Your task to perform on an android device: Open notification settings Image 0: 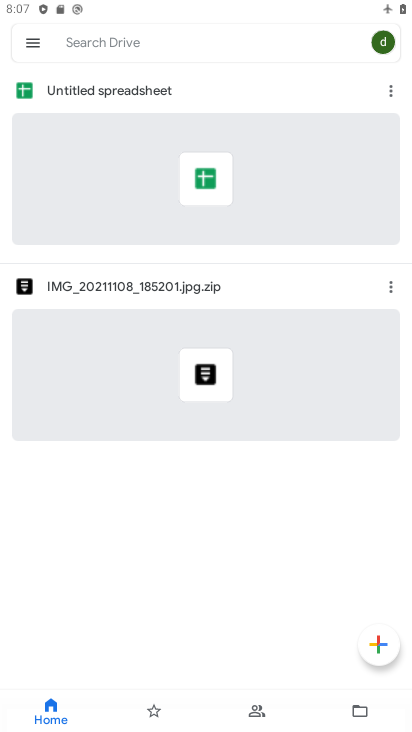
Step 0: press home button
Your task to perform on an android device: Open notification settings Image 1: 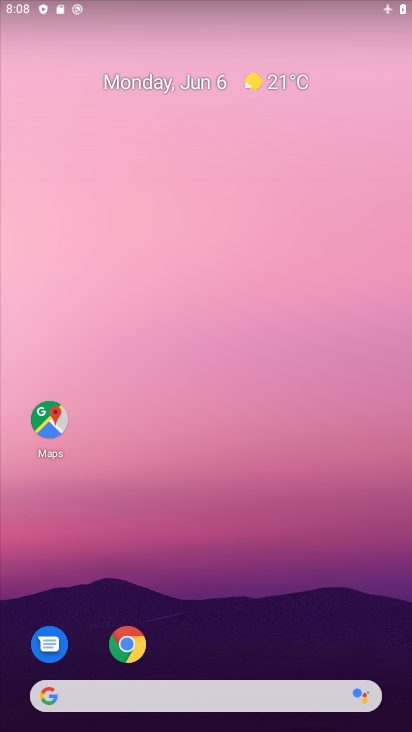
Step 1: drag from (202, 669) to (255, 0)
Your task to perform on an android device: Open notification settings Image 2: 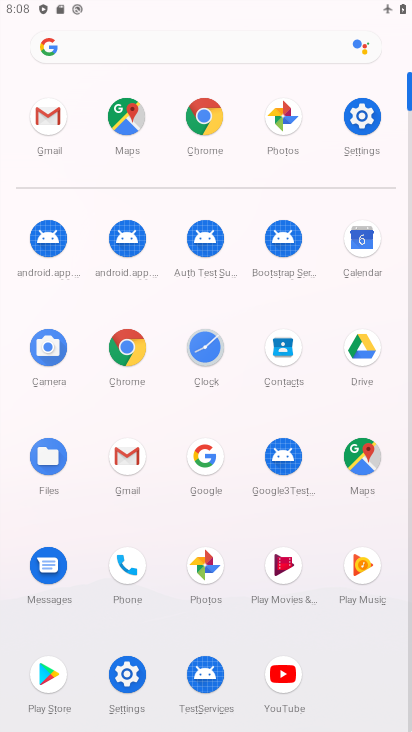
Step 2: click (136, 691)
Your task to perform on an android device: Open notification settings Image 3: 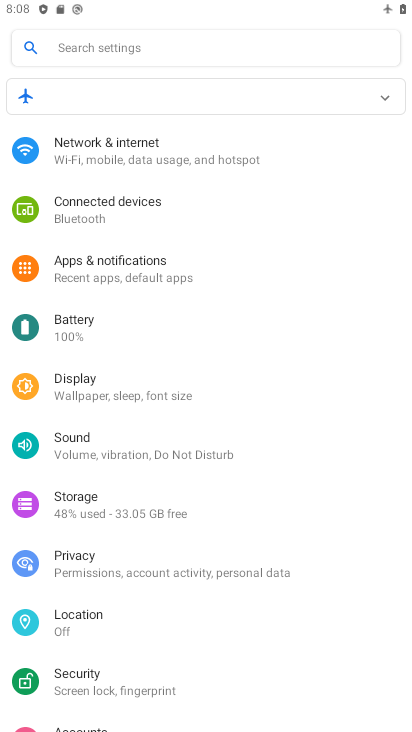
Step 3: click (100, 286)
Your task to perform on an android device: Open notification settings Image 4: 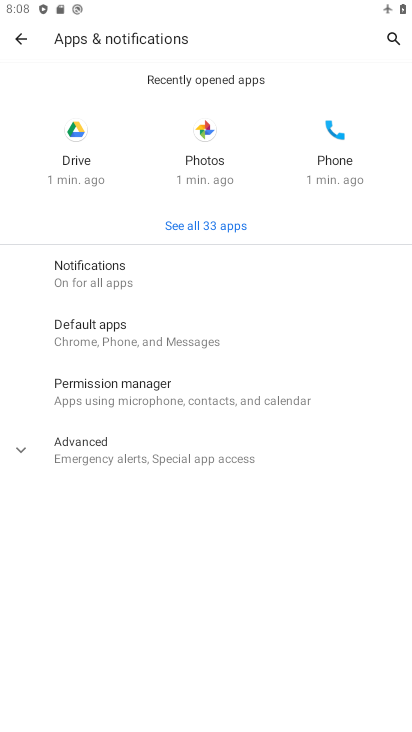
Step 4: click (74, 272)
Your task to perform on an android device: Open notification settings Image 5: 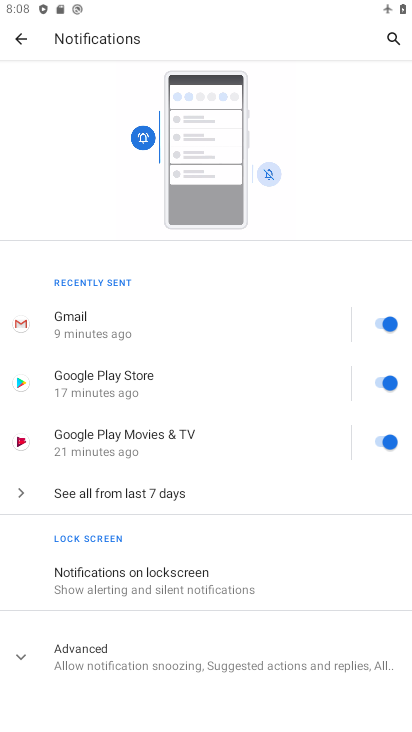
Step 5: click (134, 663)
Your task to perform on an android device: Open notification settings Image 6: 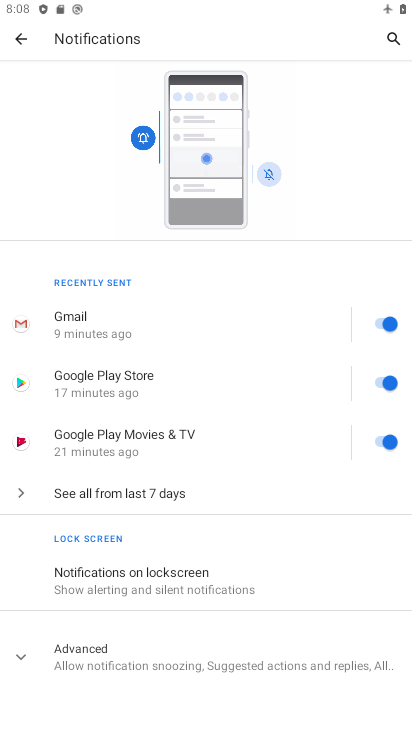
Step 6: task complete